Your task to perform on an android device: Open the web browser Image 0: 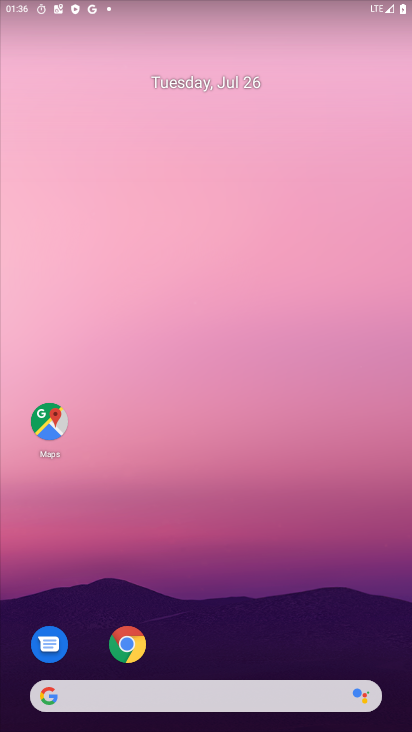
Step 0: click (129, 651)
Your task to perform on an android device: Open the web browser Image 1: 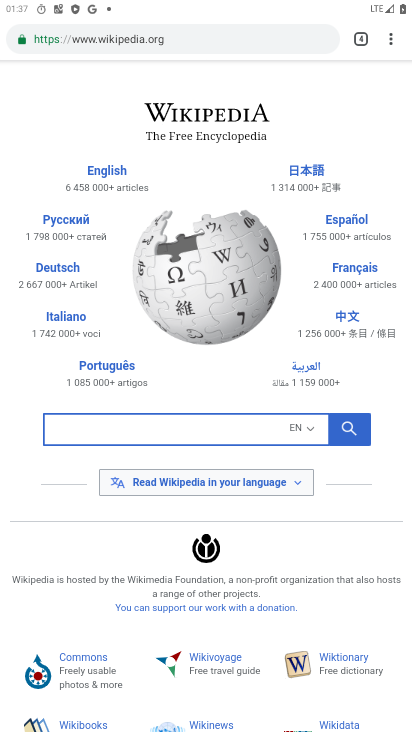
Step 1: task complete